Your task to perform on an android device: Go to calendar. Show me events next week Image 0: 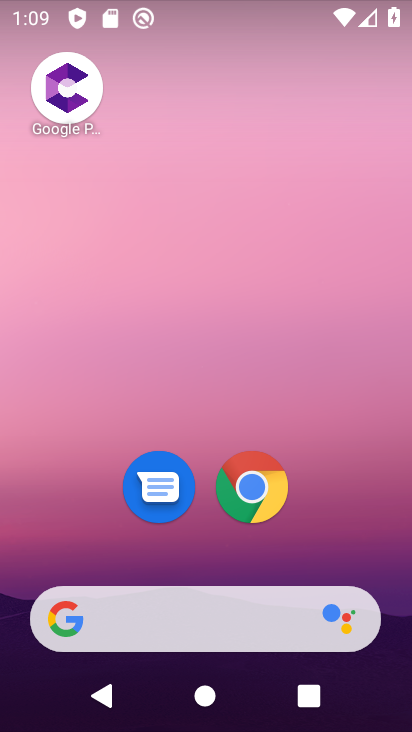
Step 0: drag from (141, 573) to (169, 262)
Your task to perform on an android device: Go to calendar. Show me events next week Image 1: 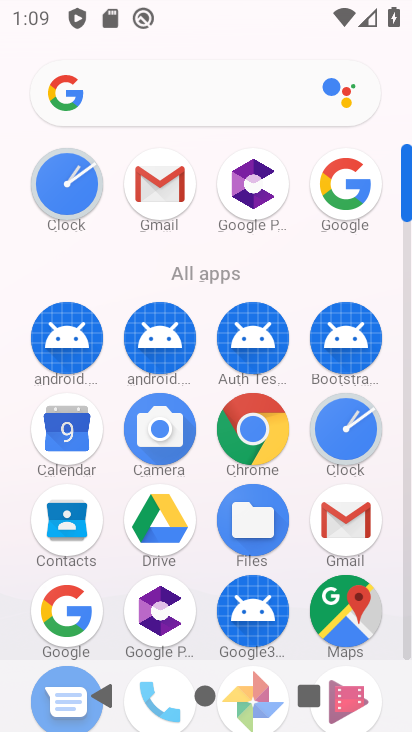
Step 1: click (38, 451)
Your task to perform on an android device: Go to calendar. Show me events next week Image 2: 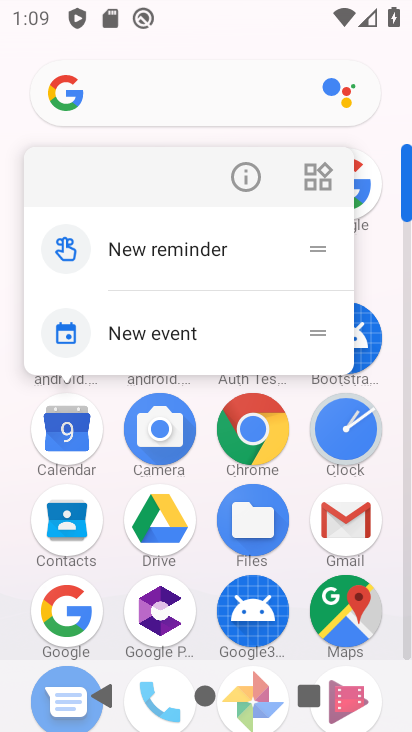
Step 2: click (55, 444)
Your task to perform on an android device: Go to calendar. Show me events next week Image 3: 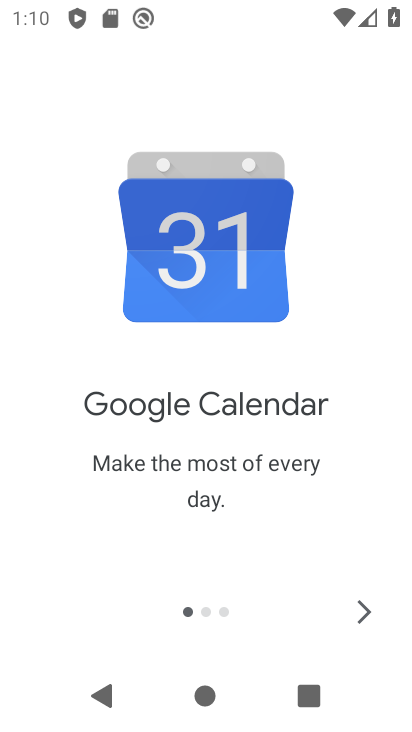
Step 3: click (359, 613)
Your task to perform on an android device: Go to calendar. Show me events next week Image 4: 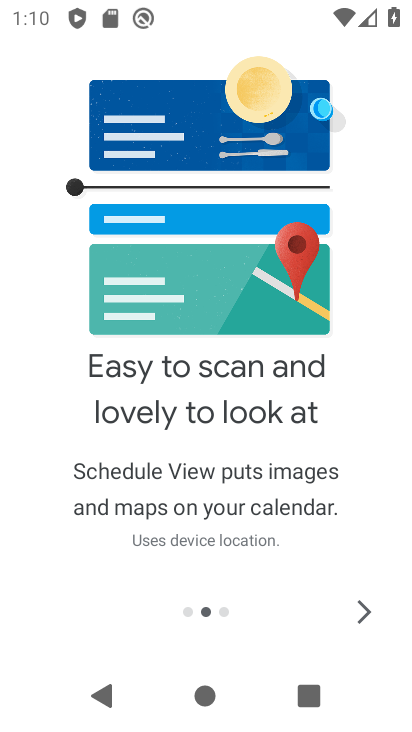
Step 4: click (359, 614)
Your task to perform on an android device: Go to calendar. Show me events next week Image 5: 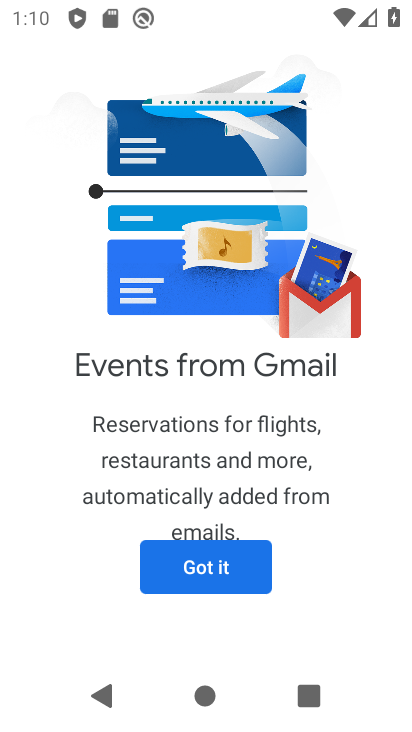
Step 5: click (359, 614)
Your task to perform on an android device: Go to calendar. Show me events next week Image 6: 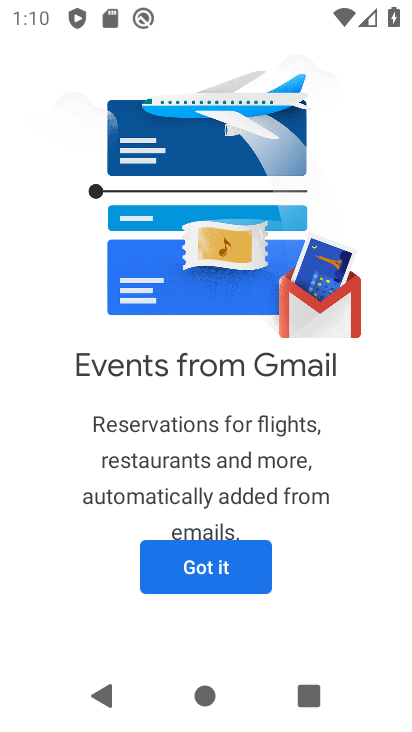
Step 6: click (223, 558)
Your task to perform on an android device: Go to calendar. Show me events next week Image 7: 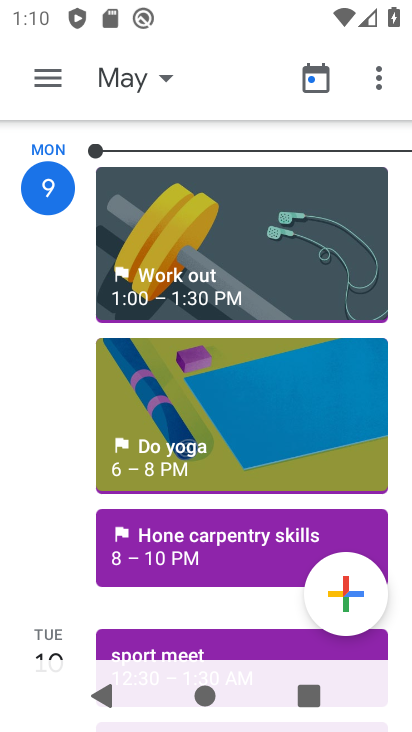
Step 7: click (46, 77)
Your task to perform on an android device: Go to calendar. Show me events next week Image 8: 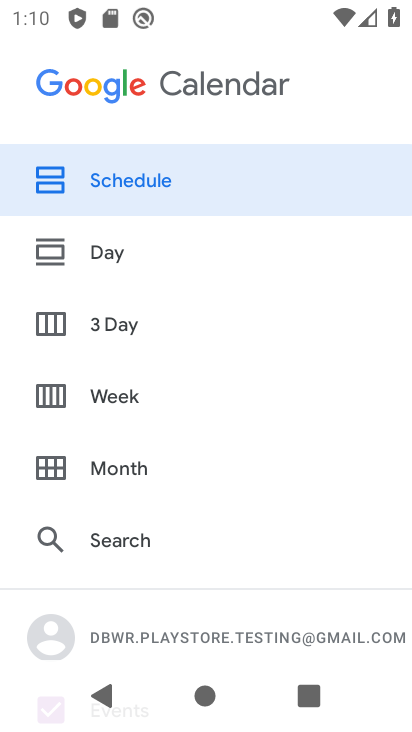
Step 8: click (111, 179)
Your task to perform on an android device: Go to calendar. Show me events next week Image 9: 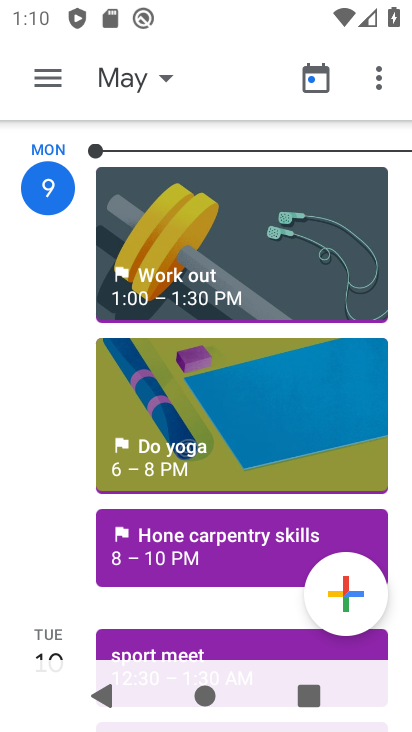
Step 9: click (139, 80)
Your task to perform on an android device: Go to calendar. Show me events next week Image 10: 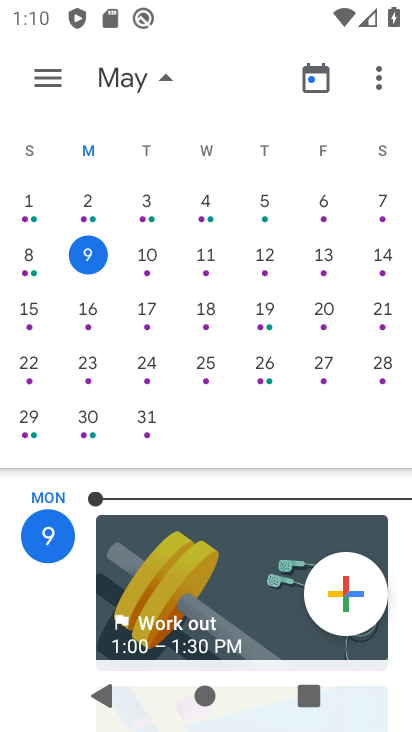
Step 10: task complete